Your task to perform on an android device: turn off improve location accuracy Image 0: 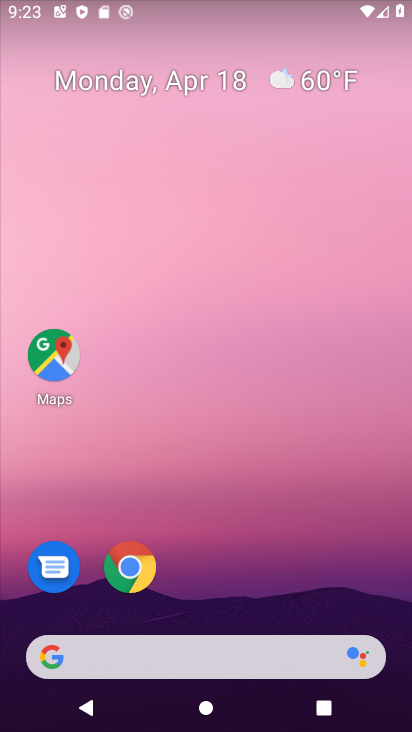
Step 0: click (254, 35)
Your task to perform on an android device: turn off improve location accuracy Image 1: 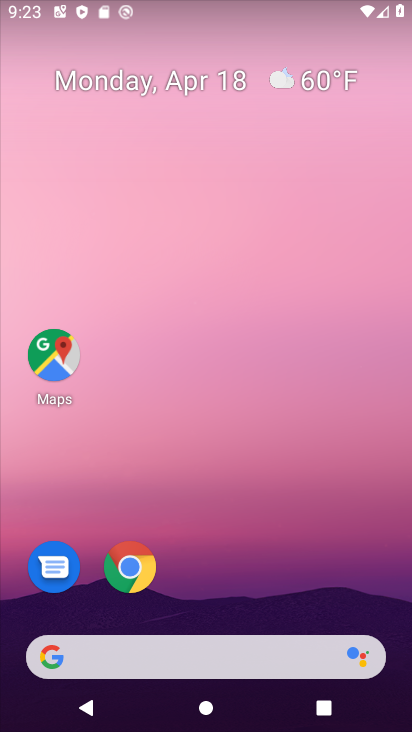
Step 1: drag from (232, 548) to (285, 117)
Your task to perform on an android device: turn off improve location accuracy Image 2: 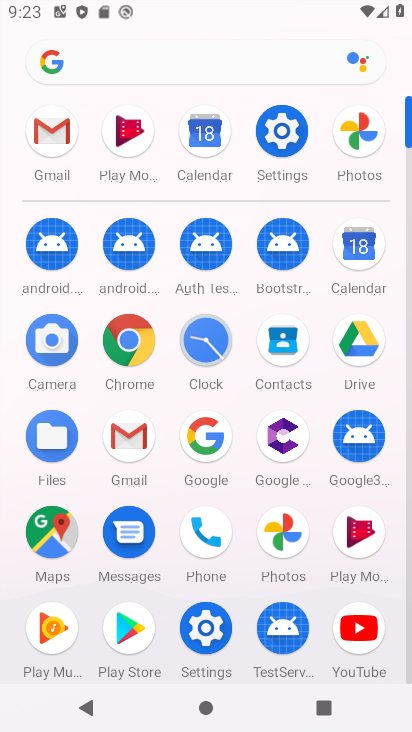
Step 2: click (284, 137)
Your task to perform on an android device: turn off improve location accuracy Image 3: 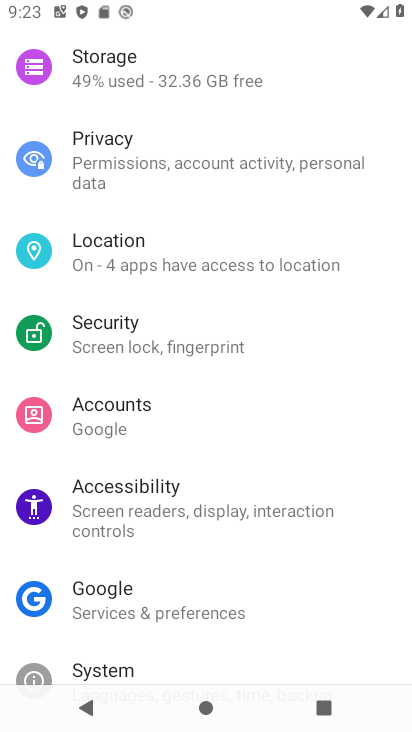
Step 3: click (208, 247)
Your task to perform on an android device: turn off improve location accuracy Image 4: 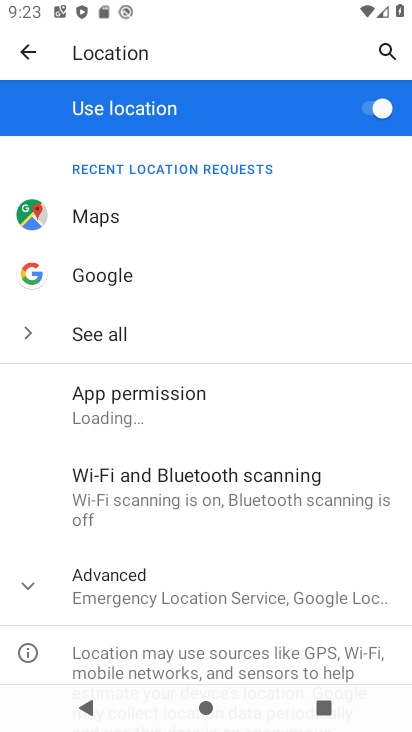
Step 4: click (155, 591)
Your task to perform on an android device: turn off improve location accuracy Image 5: 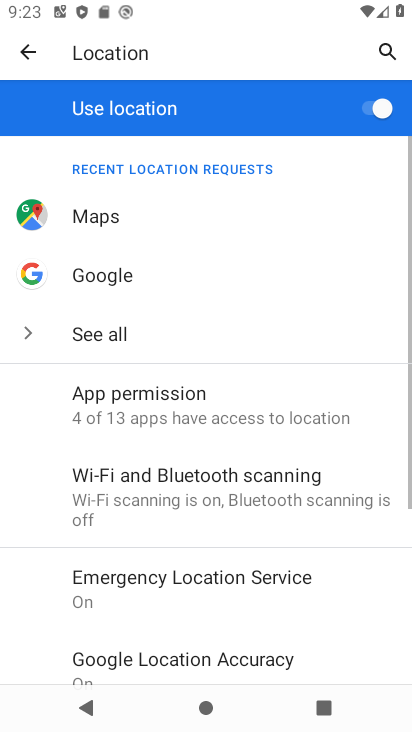
Step 5: drag from (157, 547) to (222, 296)
Your task to perform on an android device: turn off improve location accuracy Image 6: 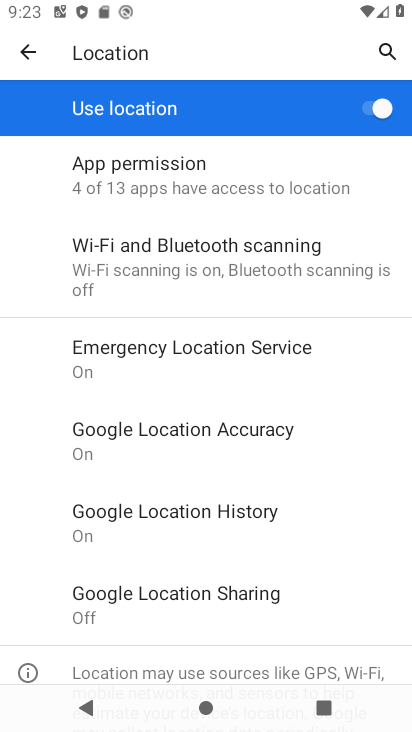
Step 6: click (171, 450)
Your task to perform on an android device: turn off improve location accuracy Image 7: 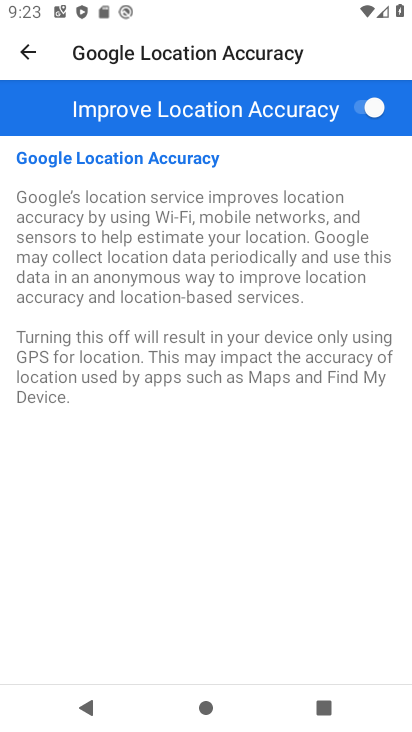
Step 7: click (365, 107)
Your task to perform on an android device: turn off improve location accuracy Image 8: 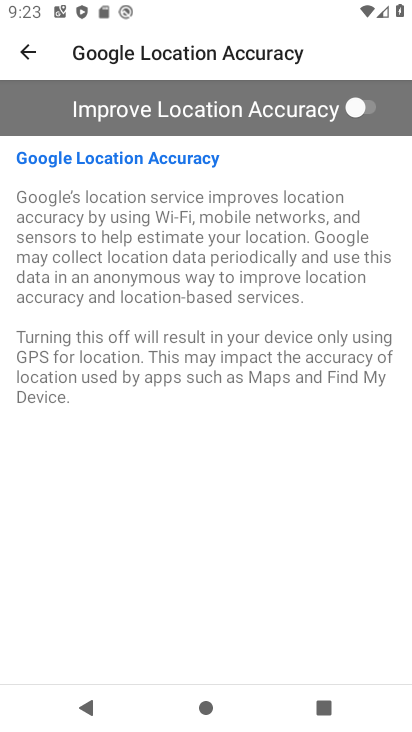
Step 8: task complete